Your task to perform on an android device: Go to eBay Image 0: 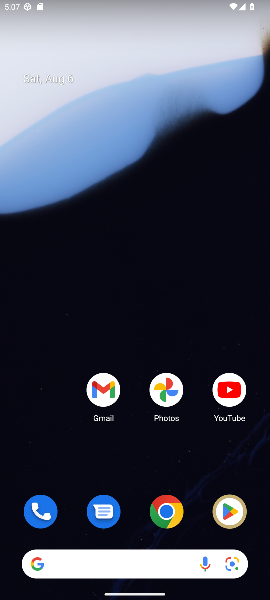
Step 0: click (166, 501)
Your task to perform on an android device: Go to eBay Image 1: 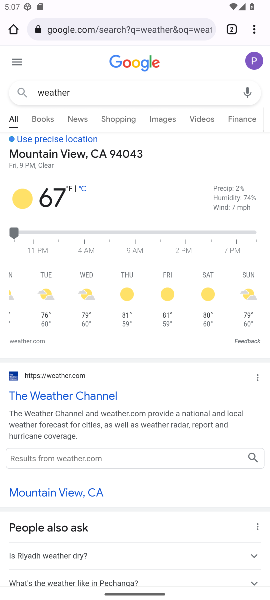
Step 1: click (146, 30)
Your task to perform on an android device: Go to eBay Image 2: 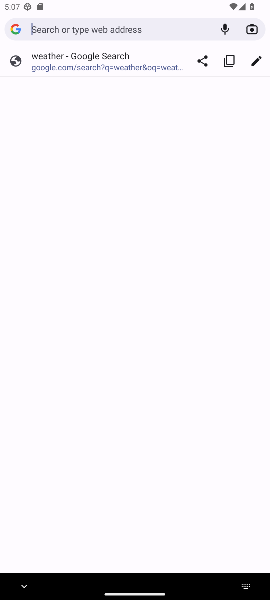
Step 2: type "eBay"
Your task to perform on an android device: Go to eBay Image 3: 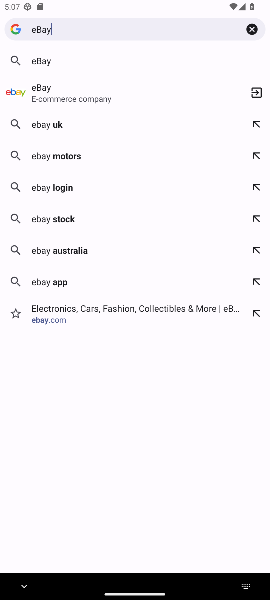
Step 3: click (55, 89)
Your task to perform on an android device: Go to eBay Image 4: 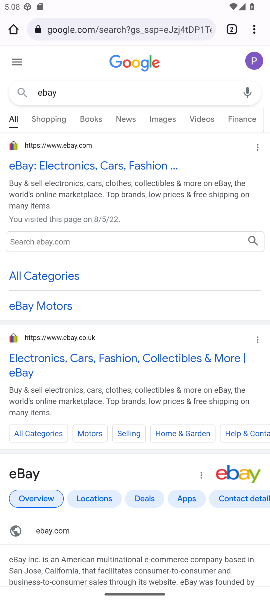
Step 4: task complete